Your task to perform on an android device: Is it going to rain this weekend? Image 0: 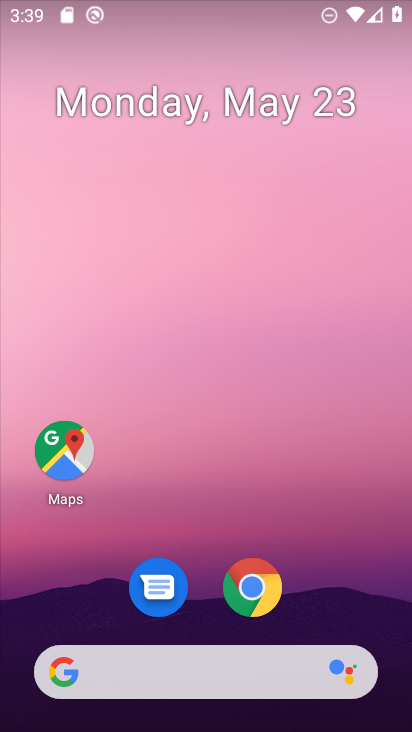
Step 0: drag from (206, 628) to (152, 0)
Your task to perform on an android device: Is it going to rain this weekend? Image 1: 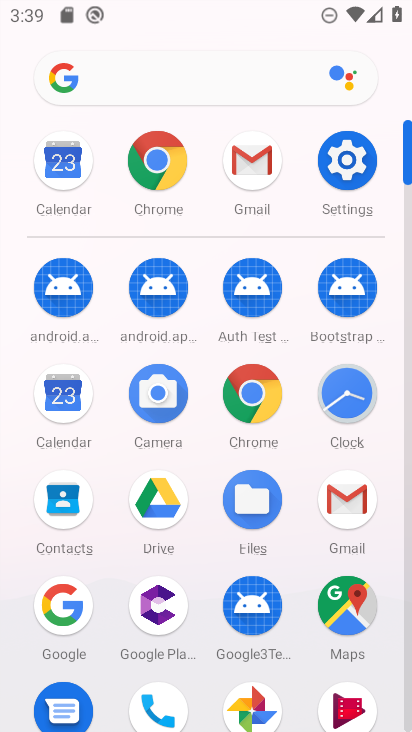
Step 1: click (163, 89)
Your task to perform on an android device: Is it going to rain this weekend? Image 2: 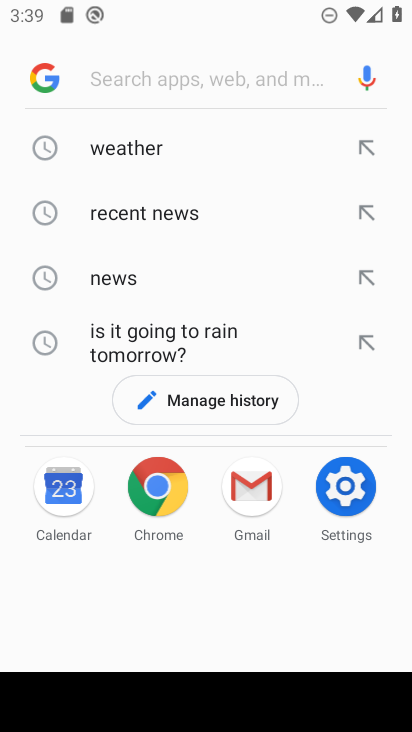
Step 2: click (153, 147)
Your task to perform on an android device: Is it going to rain this weekend? Image 3: 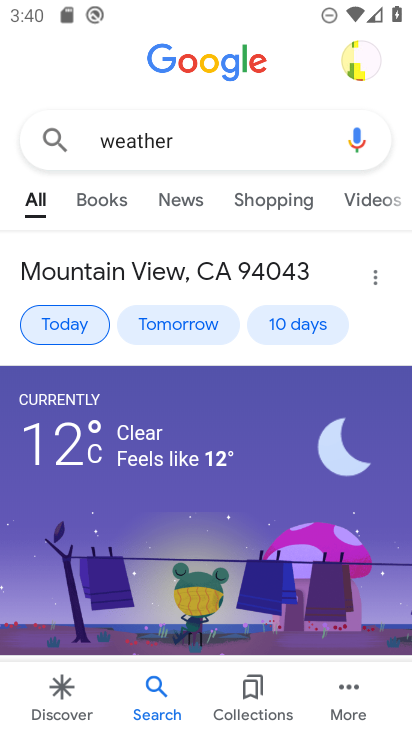
Step 3: drag from (225, 480) to (250, 277)
Your task to perform on an android device: Is it going to rain this weekend? Image 4: 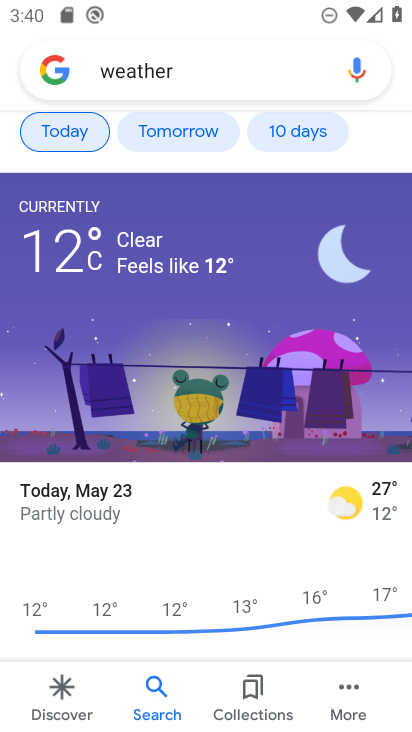
Step 4: click (289, 133)
Your task to perform on an android device: Is it going to rain this weekend? Image 5: 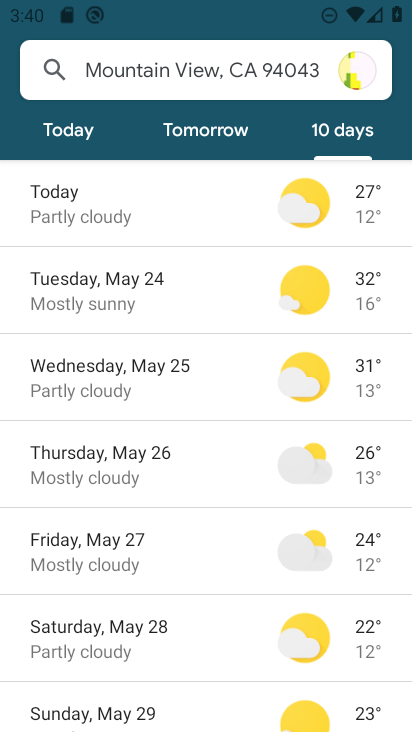
Step 5: task complete